Your task to perform on an android device: Open Google Chrome and click the shortcut for Amazon.com Image 0: 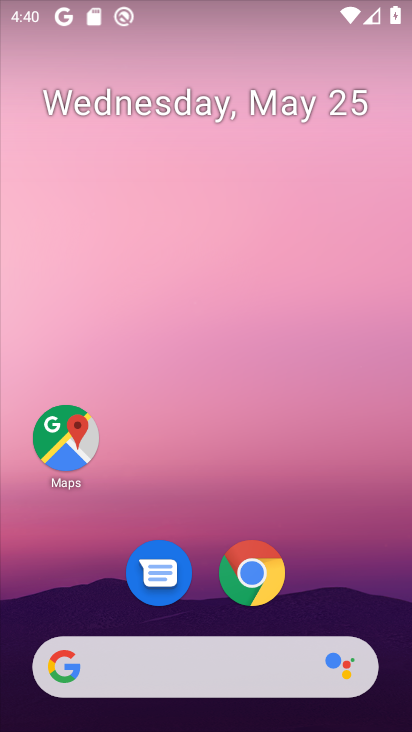
Step 0: click (258, 571)
Your task to perform on an android device: Open Google Chrome and click the shortcut for Amazon.com Image 1: 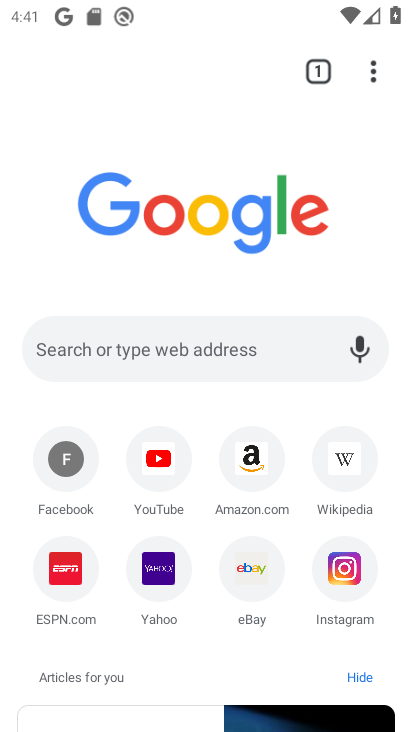
Step 1: click (244, 460)
Your task to perform on an android device: Open Google Chrome and click the shortcut for Amazon.com Image 2: 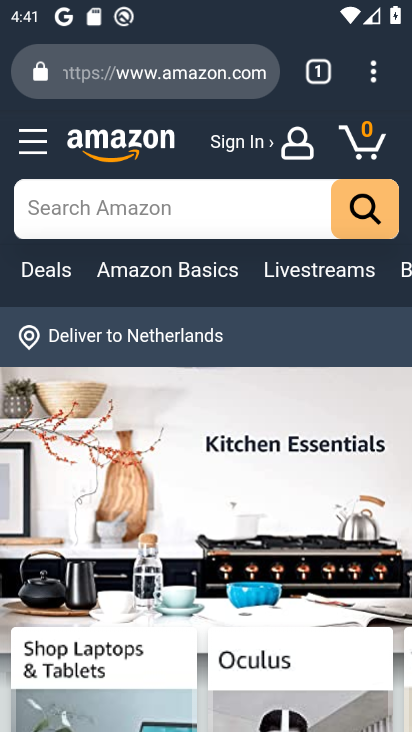
Step 2: task complete